Your task to perform on an android device: Go to network settings Image 0: 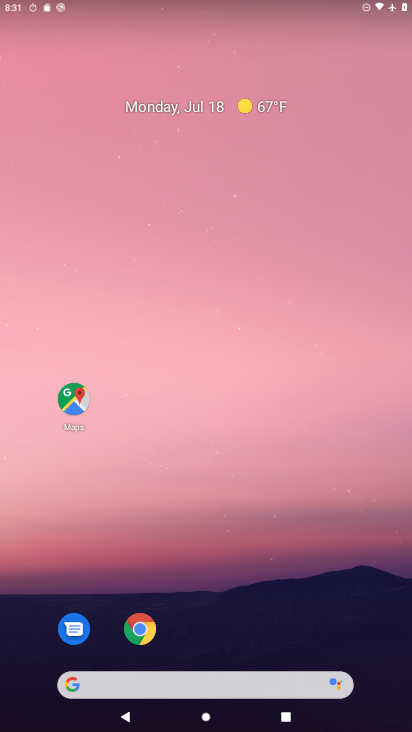
Step 0: drag from (178, 658) to (121, 1)
Your task to perform on an android device: Go to network settings Image 1: 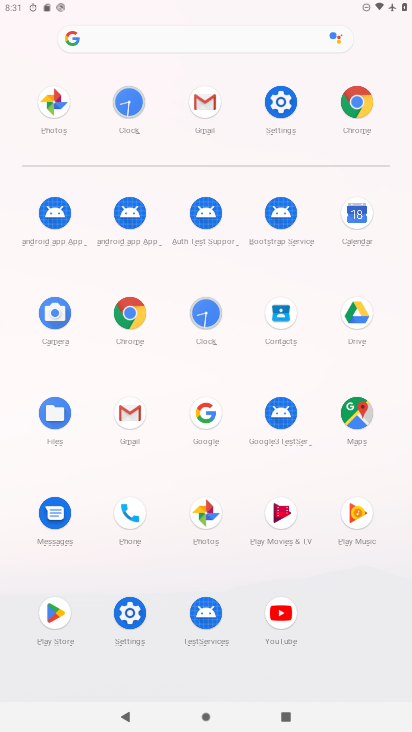
Step 1: click (276, 91)
Your task to perform on an android device: Go to network settings Image 2: 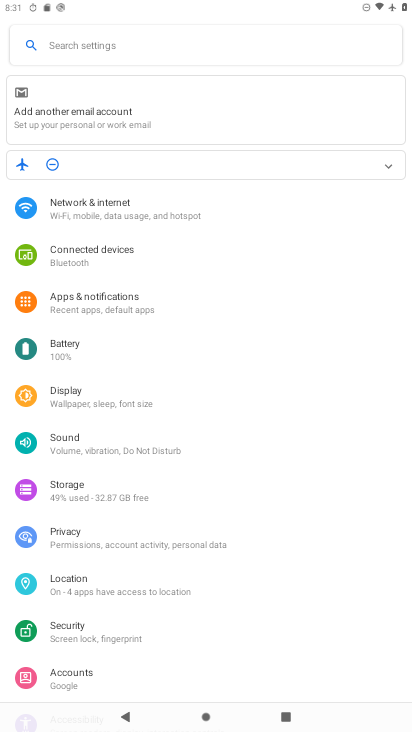
Step 2: click (96, 208)
Your task to perform on an android device: Go to network settings Image 3: 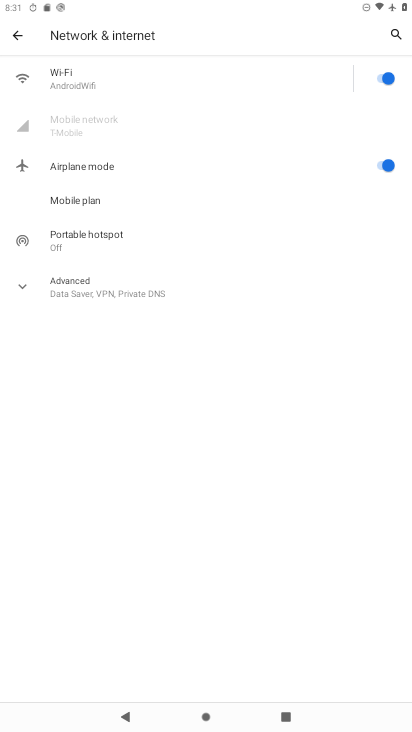
Step 3: click (107, 287)
Your task to perform on an android device: Go to network settings Image 4: 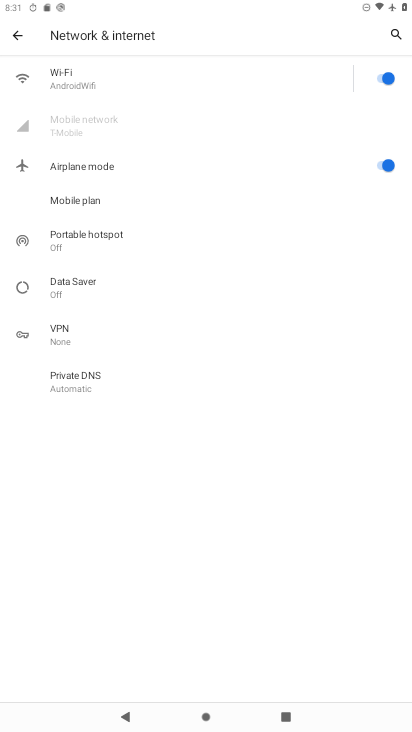
Step 4: task complete